Your task to perform on an android device: turn on wifi Image 0: 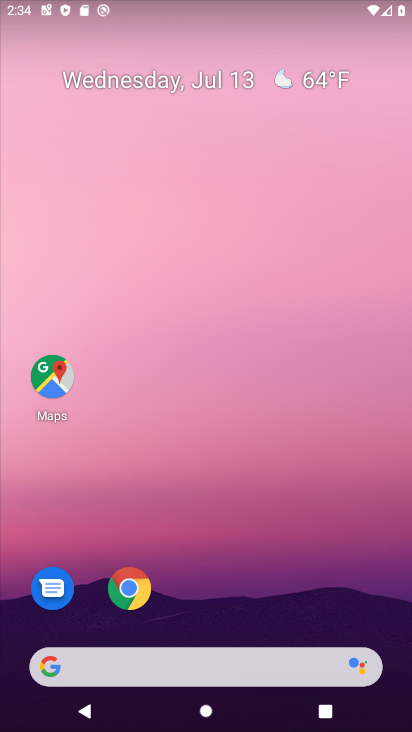
Step 0: drag from (271, 598) to (258, 91)
Your task to perform on an android device: turn on wifi Image 1: 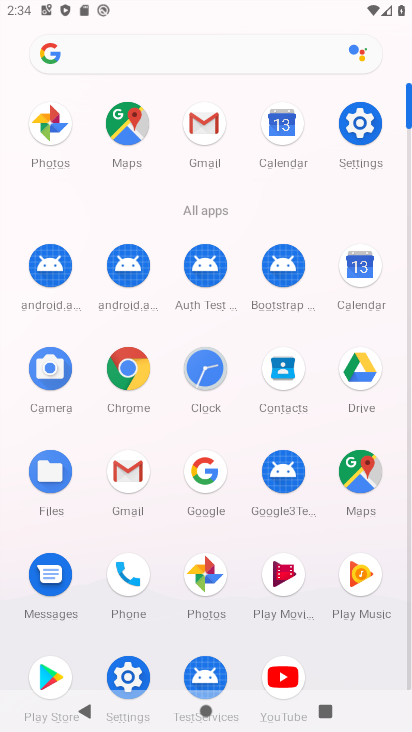
Step 1: click (349, 126)
Your task to perform on an android device: turn on wifi Image 2: 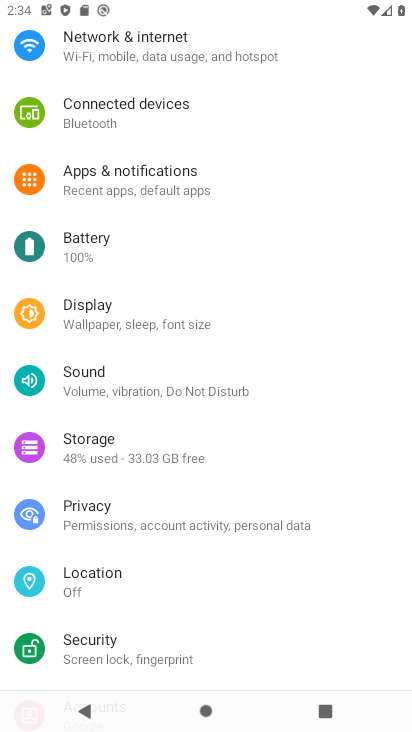
Step 2: click (219, 58)
Your task to perform on an android device: turn on wifi Image 3: 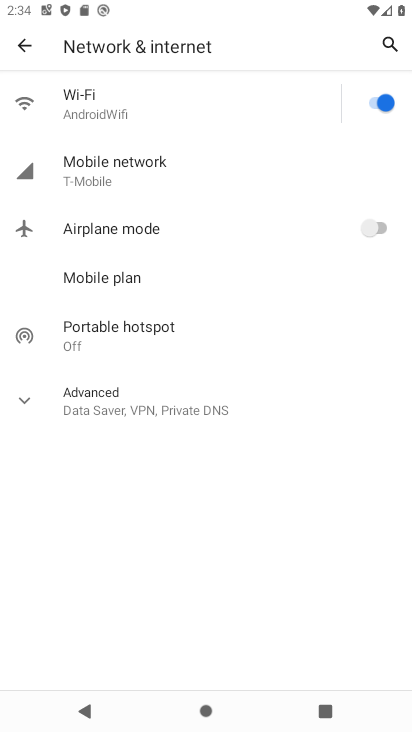
Step 3: task complete